Your task to perform on an android device: clear all cookies in the chrome app Image 0: 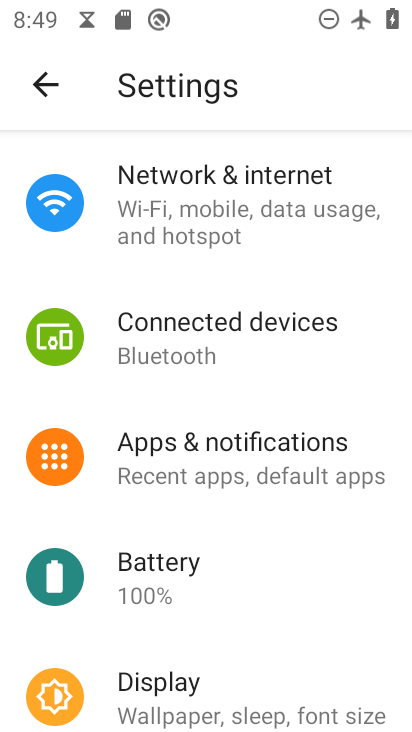
Step 0: press home button
Your task to perform on an android device: clear all cookies in the chrome app Image 1: 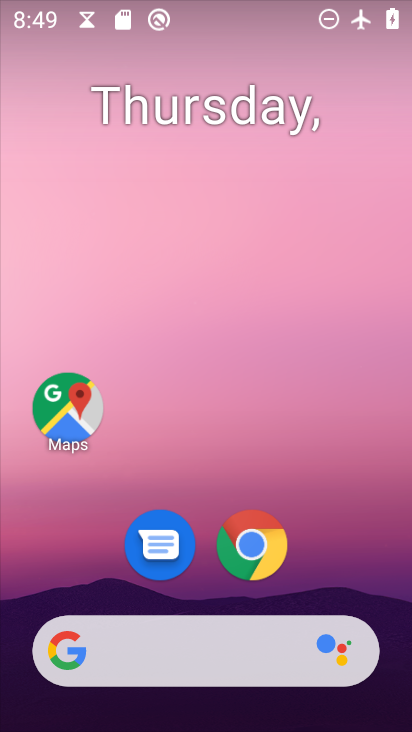
Step 1: click (251, 542)
Your task to perform on an android device: clear all cookies in the chrome app Image 2: 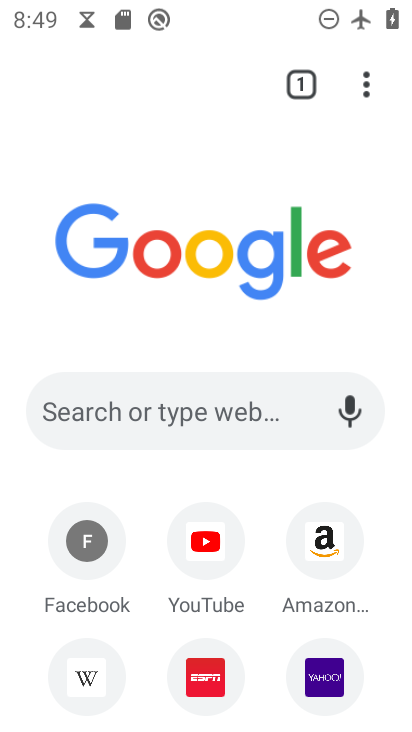
Step 2: click (366, 87)
Your task to perform on an android device: clear all cookies in the chrome app Image 3: 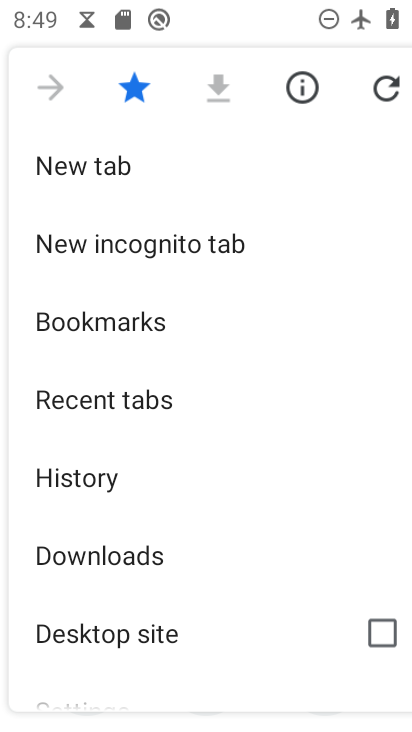
Step 3: drag from (140, 585) to (159, 477)
Your task to perform on an android device: clear all cookies in the chrome app Image 4: 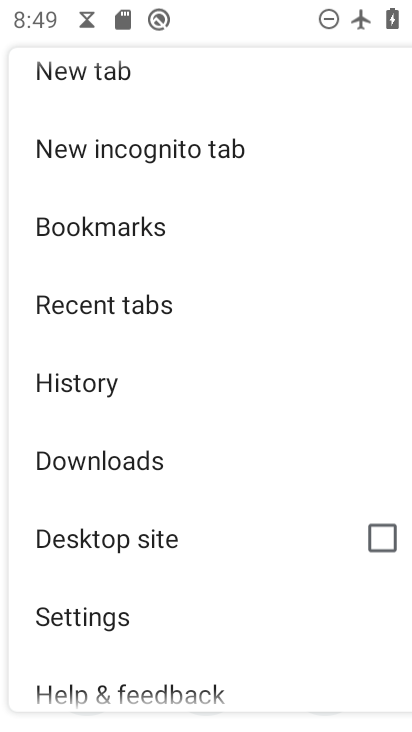
Step 4: drag from (96, 595) to (178, 477)
Your task to perform on an android device: clear all cookies in the chrome app Image 5: 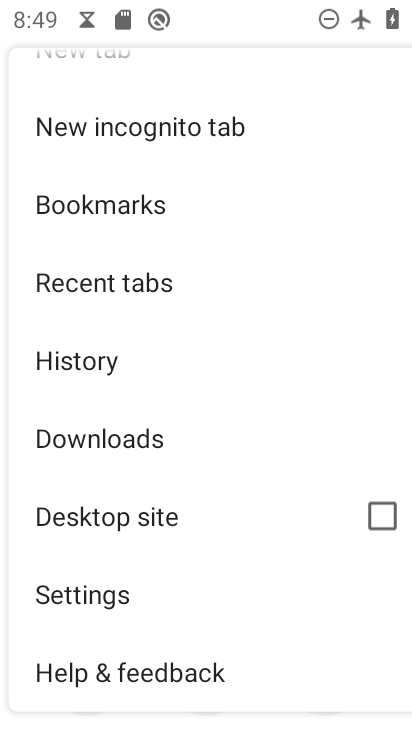
Step 5: click (117, 590)
Your task to perform on an android device: clear all cookies in the chrome app Image 6: 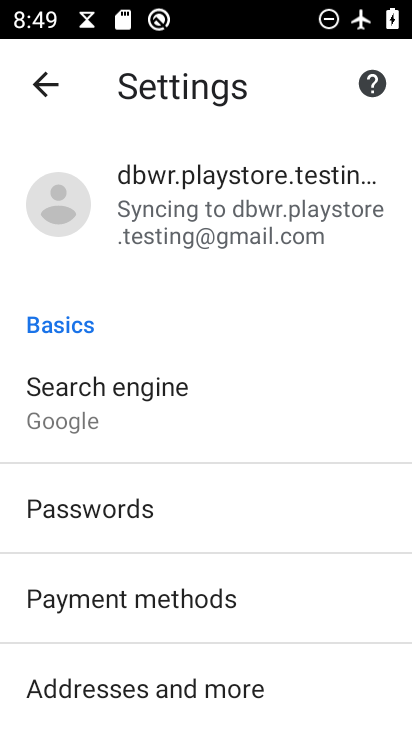
Step 6: drag from (142, 571) to (227, 439)
Your task to perform on an android device: clear all cookies in the chrome app Image 7: 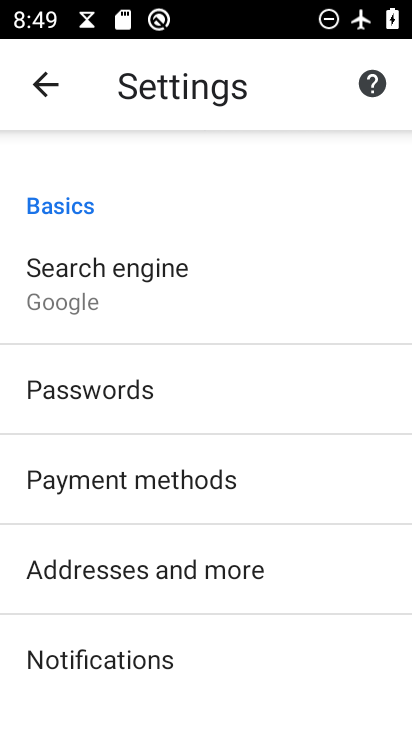
Step 7: drag from (139, 562) to (203, 472)
Your task to perform on an android device: clear all cookies in the chrome app Image 8: 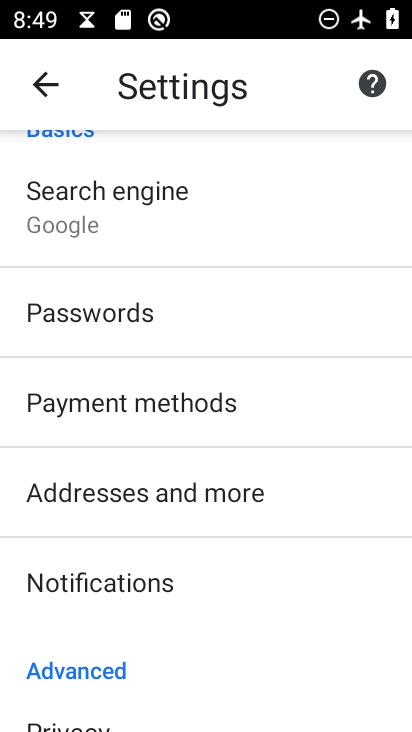
Step 8: drag from (146, 566) to (224, 477)
Your task to perform on an android device: clear all cookies in the chrome app Image 9: 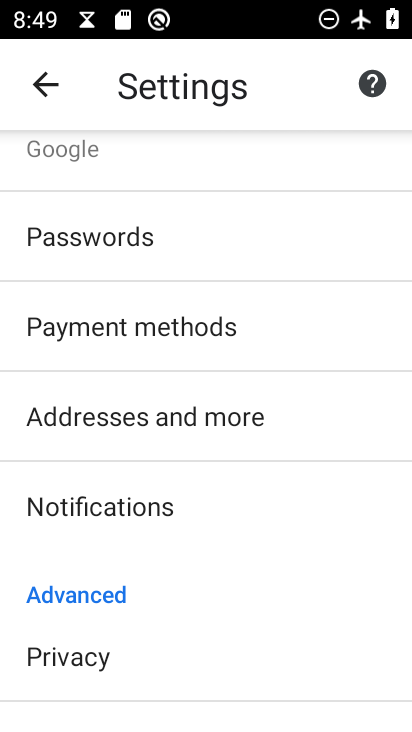
Step 9: drag from (130, 544) to (213, 432)
Your task to perform on an android device: clear all cookies in the chrome app Image 10: 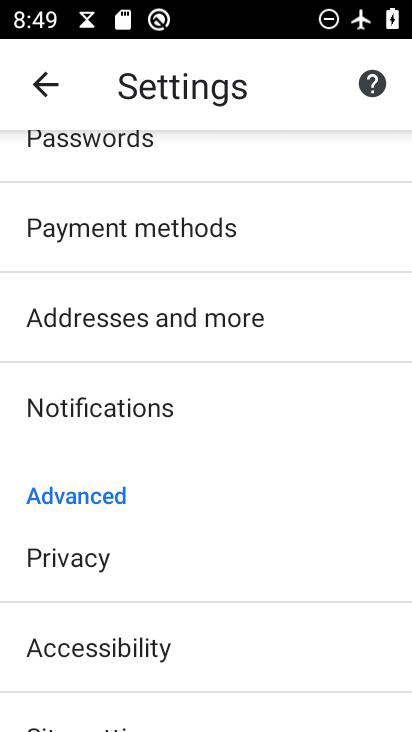
Step 10: click (89, 558)
Your task to perform on an android device: clear all cookies in the chrome app Image 11: 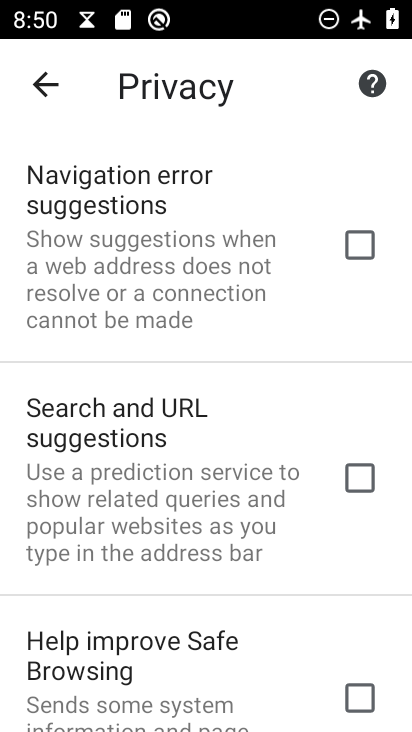
Step 11: drag from (156, 605) to (210, 452)
Your task to perform on an android device: clear all cookies in the chrome app Image 12: 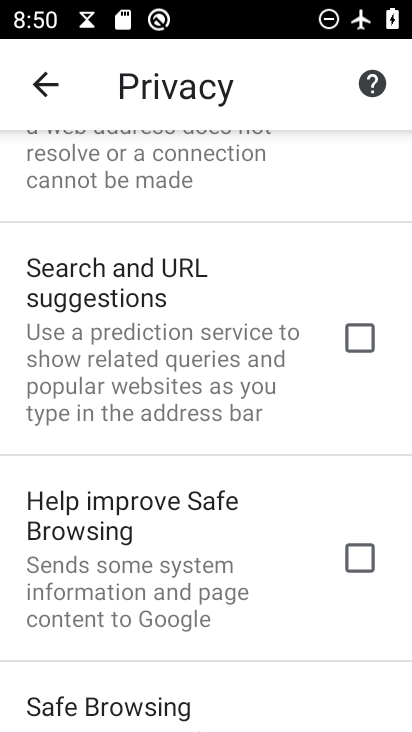
Step 12: drag from (122, 647) to (202, 475)
Your task to perform on an android device: clear all cookies in the chrome app Image 13: 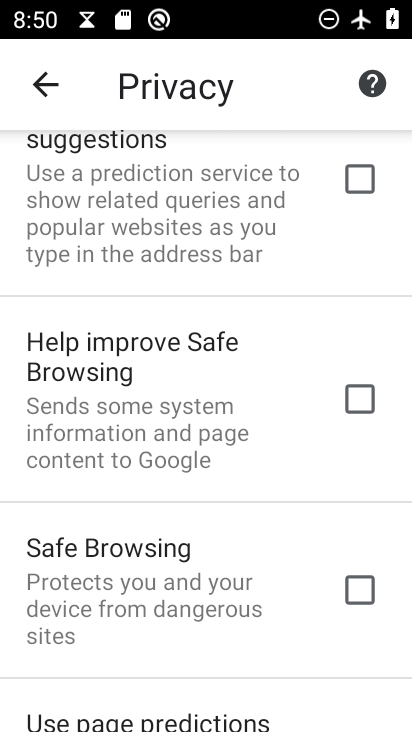
Step 13: drag from (146, 658) to (220, 496)
Your task to perform on an android device: clear all cookies in the chrome app Image 14: 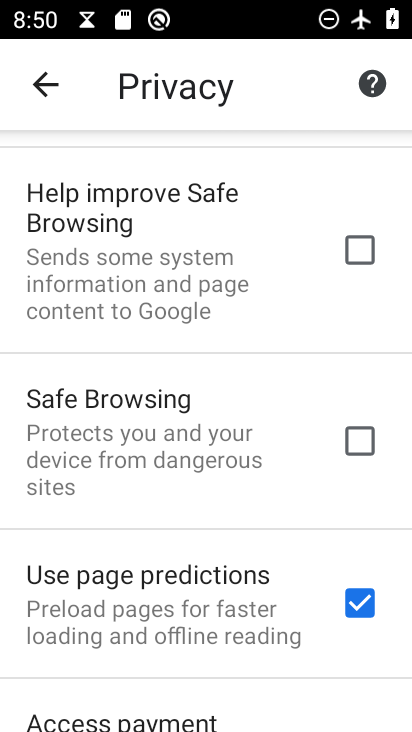
Step 14: drag from (150, 570) to (251, 438)
Your task to perform on an android device: clear all cookies in the chrome app Image 15: 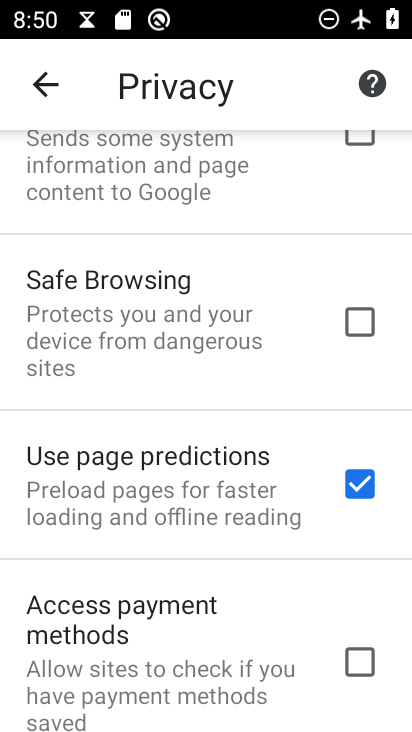
Step 15: drag from (138, 549) to (233, 385)
Your task to perform on an android device: clear all cookies in the chrome app Image 16: 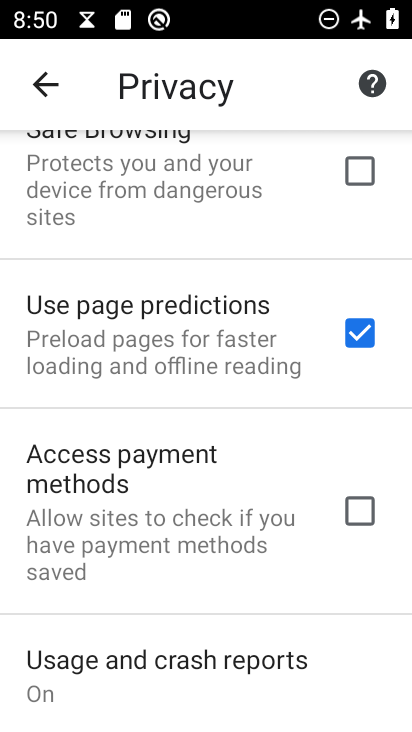
Step 16: drag from (171, 585) to (264, 365)
Your task to perform on an android device: clear all cookies in the chrome app Image 17: 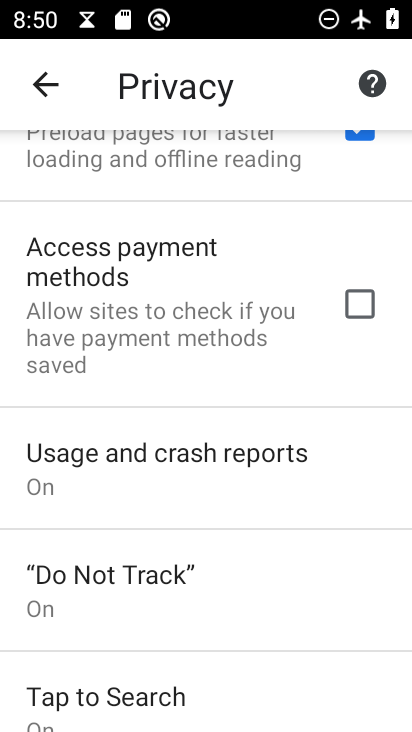
Step 17: drag from (144, 626) to (202, 517)
Your task to perform on an android device: clear all cookies in the chrome app Image 18: 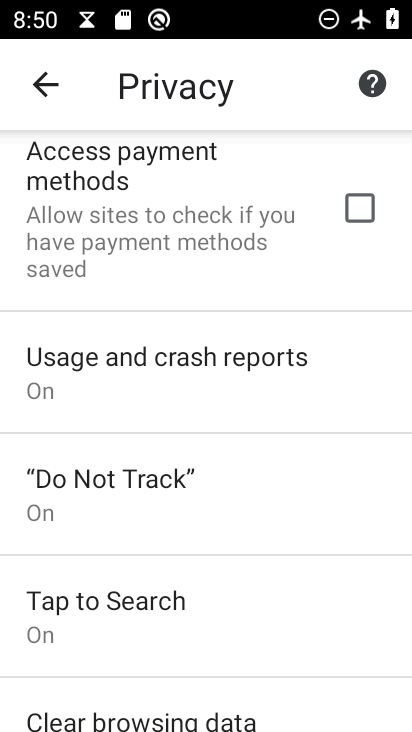
Step 18: drag from (133, 651) to (205, 542)
Your task to perform on an android device: clear all cookies in the chrome app Image 19: 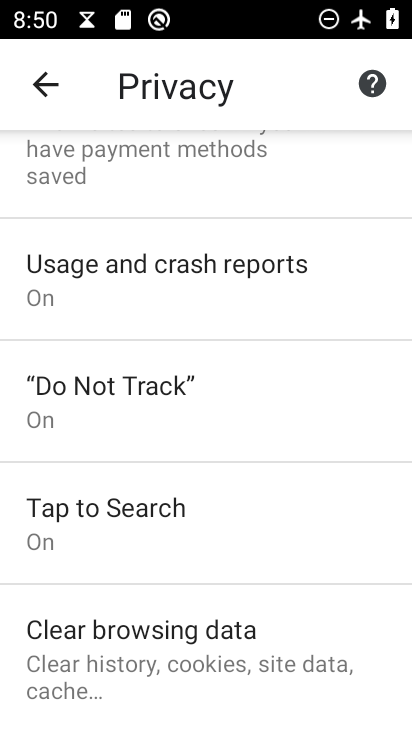
Step 19: click (175, 652)
Your task to perform on an android device: clear all cookies in the chrome app Image 20: 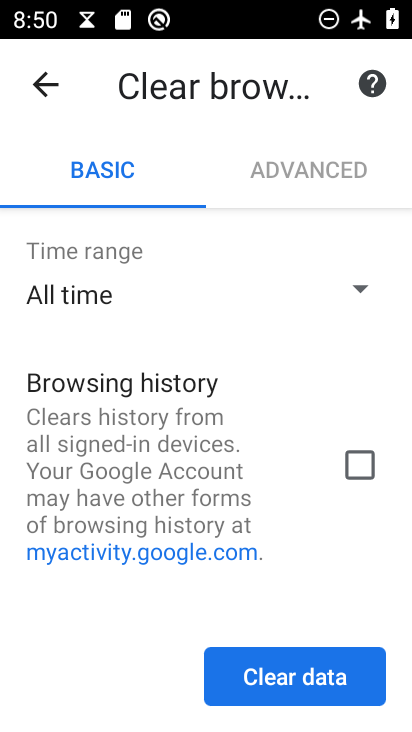
Step 20: click (355, 469)
Your task to perform on an android device: clear all cookies in the chrome app Image 21: 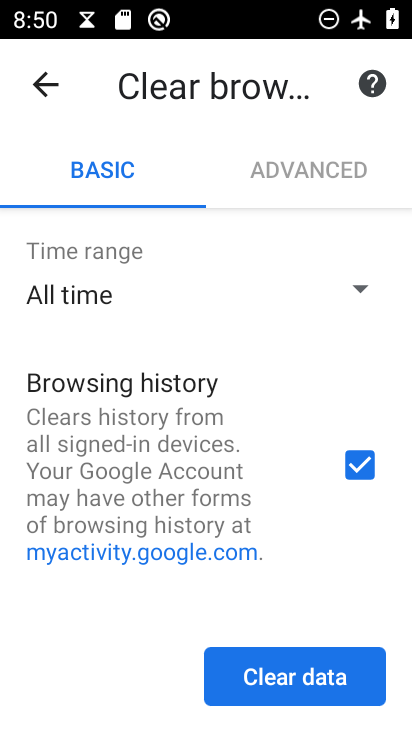
Step 21: drag from (237, 545) to (298, 323)
Your task to perform on an android device: clear all cookies in the chrome app Image 22: 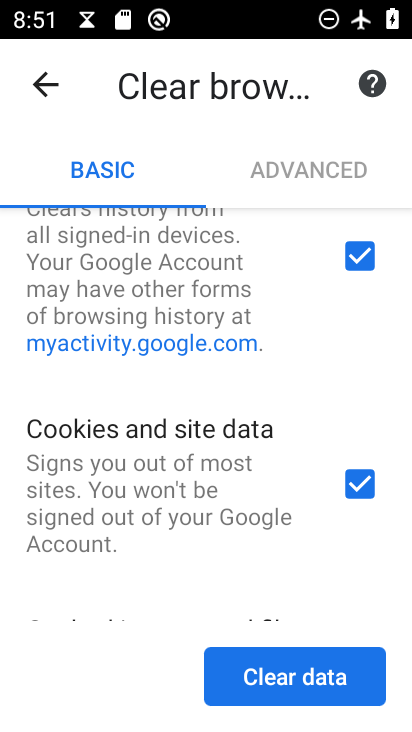
Step 22: click (288, 665)
Your task to perform on an android device: clear all cookies in the chrome app Image 23: 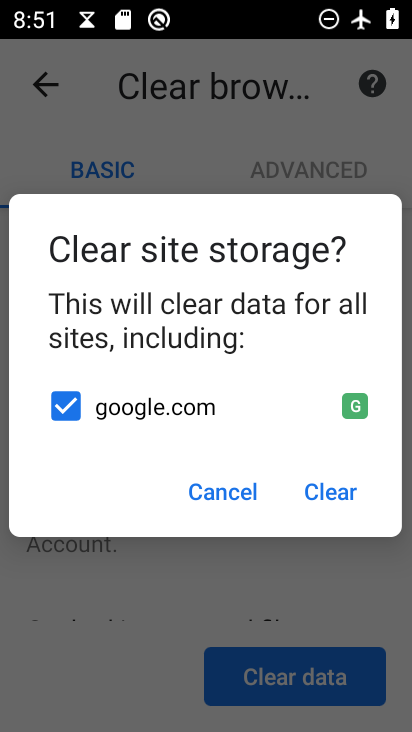
Step 23: click (332, 495)
Your task to perform on an android device: clear all cookies in the chrome app Image 24: 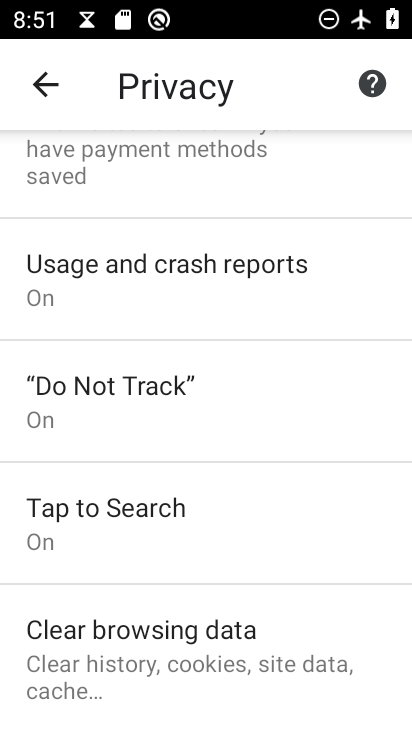
Step 24: task complete